Your task to perform on an android device: Open sound settings Image 0: 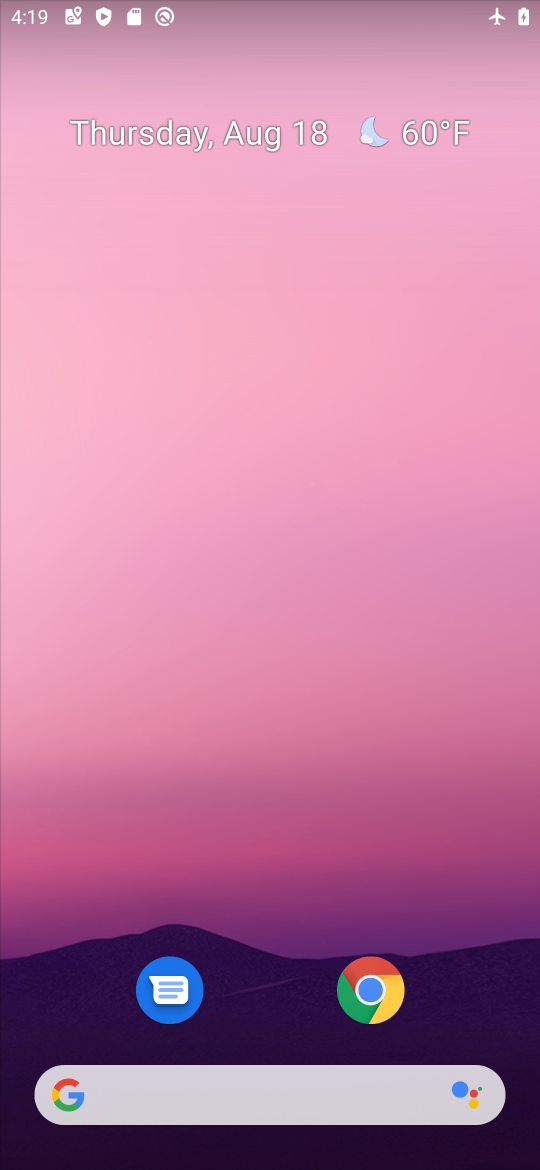
Step 0: drag from (232, 911) to (269, 256)
Your task to perform on an android device: Open sound settings Image 1: 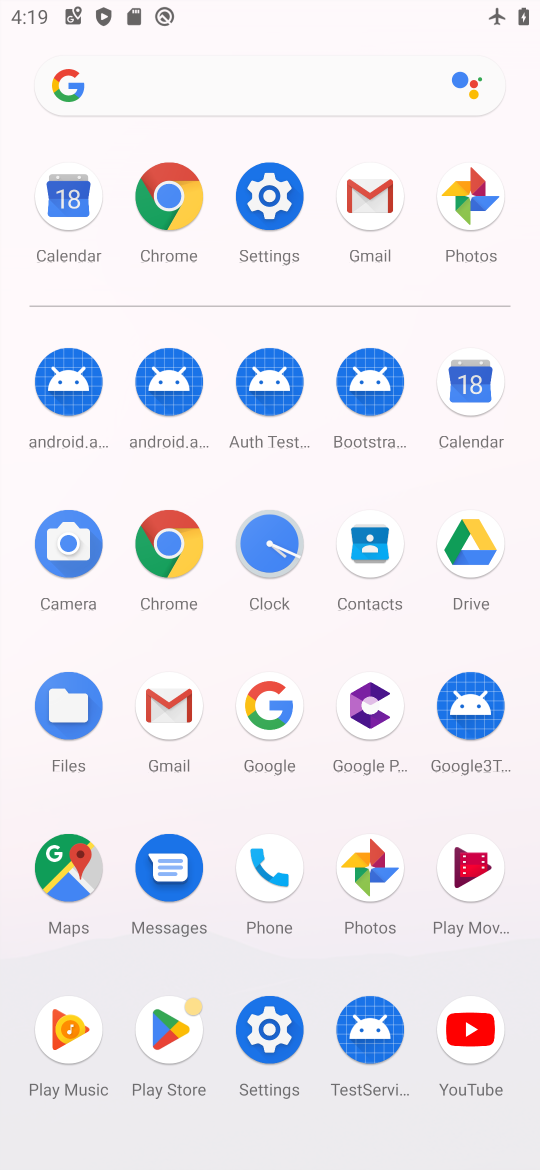
Step 1: click (262, 1045)
Your task to perform on an android device: Open sound settings Image 2: 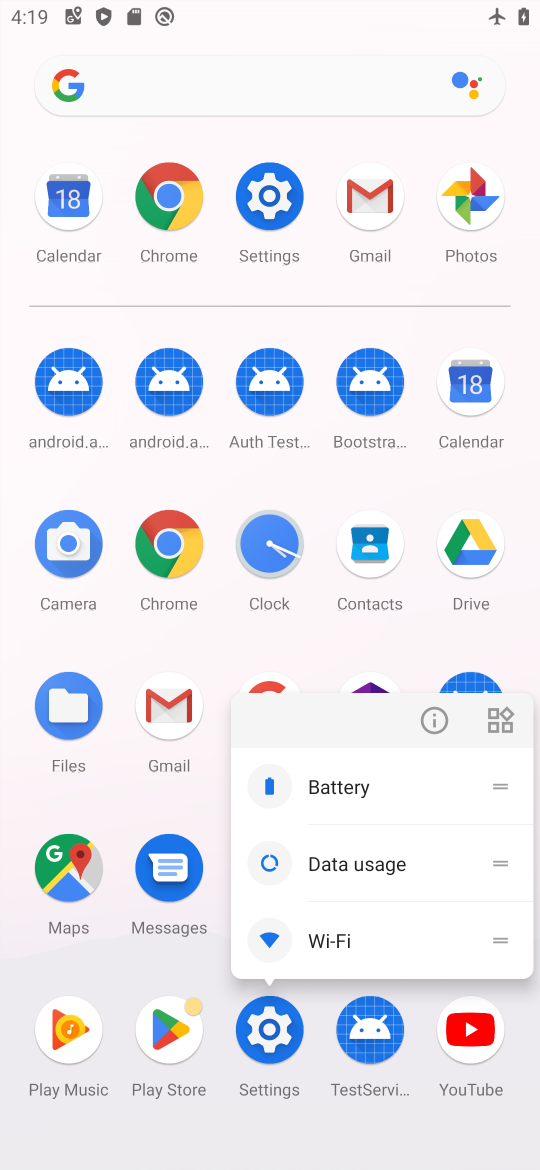
Step 2: click (263, 1021)
Your task to perform on an android device: Open sound settings Image 3: 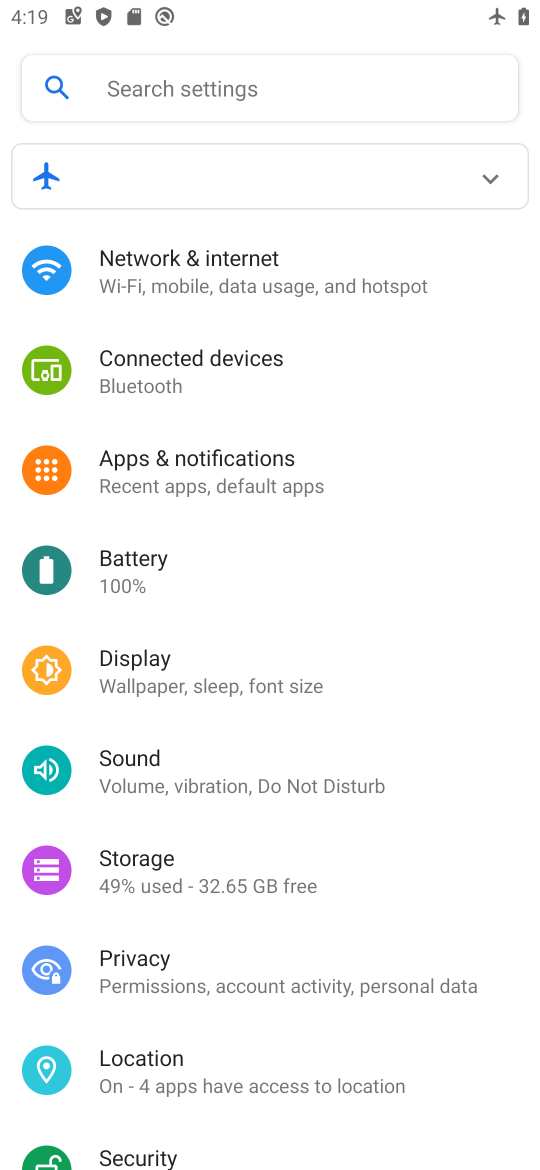
Step 3: click (193, 780)
Your task to perform on an android device: Open sound settings Image 4: 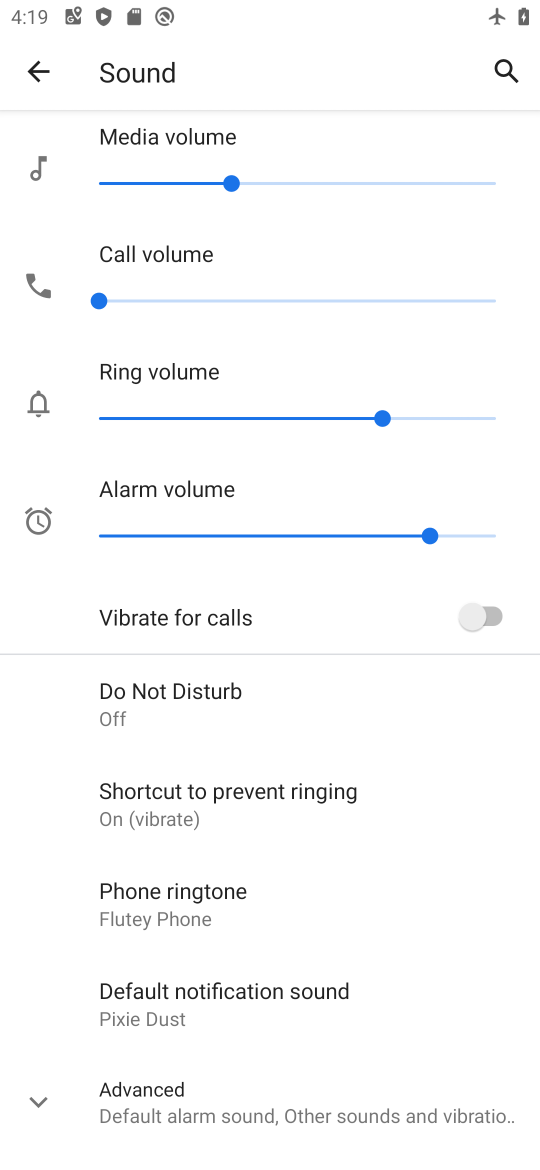
Step 4: task complete